Your task to perform on an android device: Show me recent news Image 0: 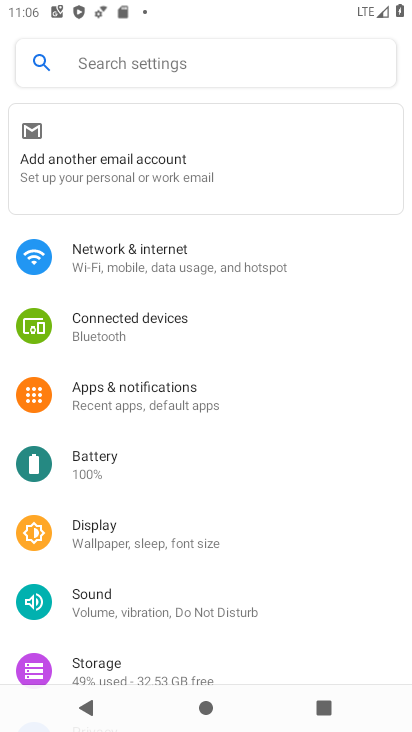
Step 0: press home button
Your task to perform on an android device: Show me recent news Image 1: 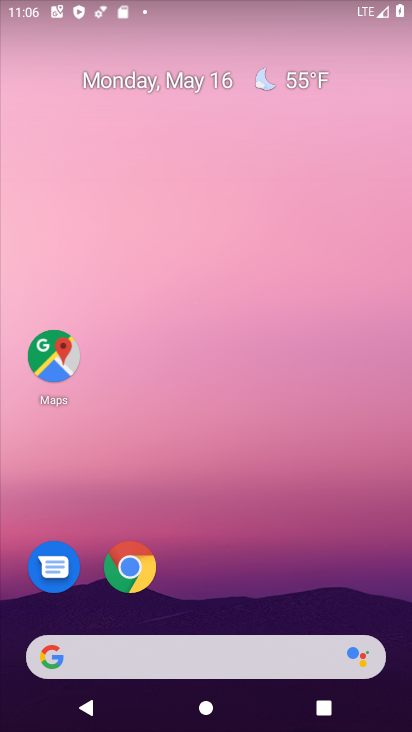
Step 1: task complete